Your task to perform on an android device: Open Chrome and go to settings Image 0: 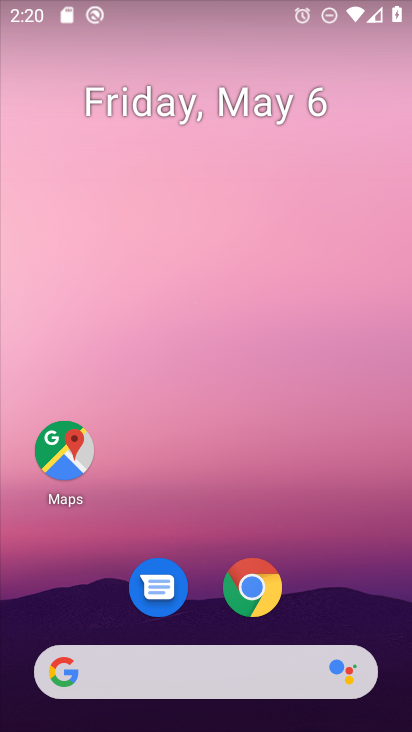
Step 0: click (255, 581)
Your task to perform on an android device: Open Chrome and go to settings Image 1: 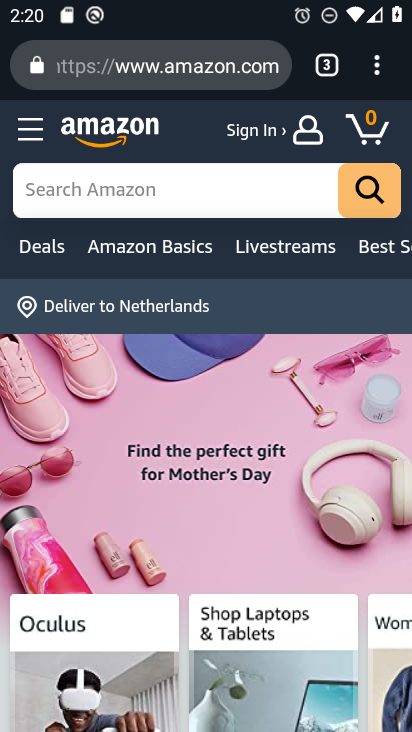
Step 1: task complete